Your task to perform on an android device: Open accessibility settings Image 0: 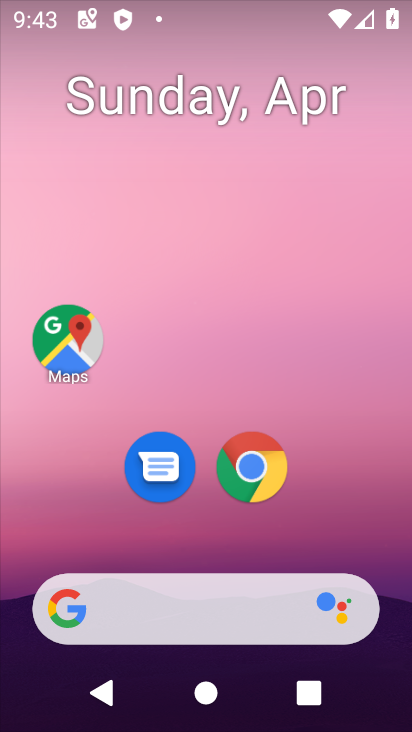
Step 0: drag from (201, 351) to (274, 6)
Your task to perform on an android device: Open accessibility settings Image 1: 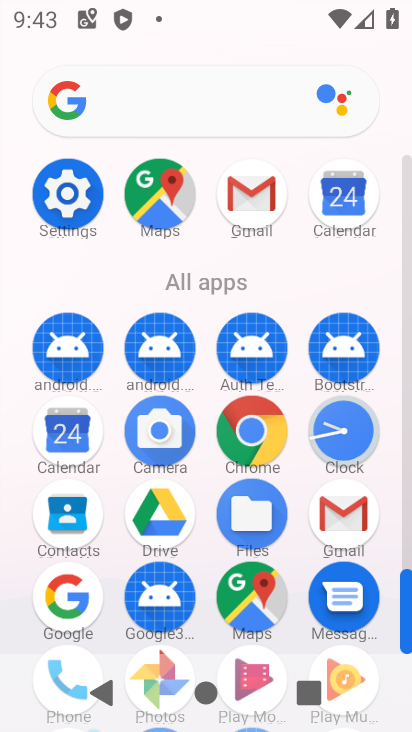
Step 1: click (68, 201)
Your task to perform on an android device: Open accessibility settings Image 2: 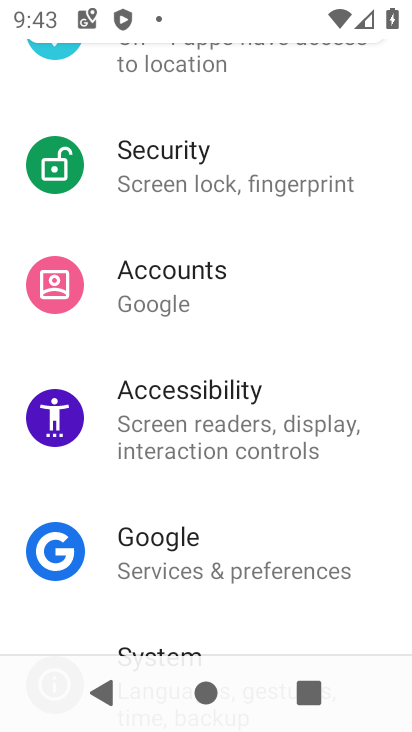
Step 2: click (222, 440)
Your task to perform on an android device: Open accessibility settings Image 3: 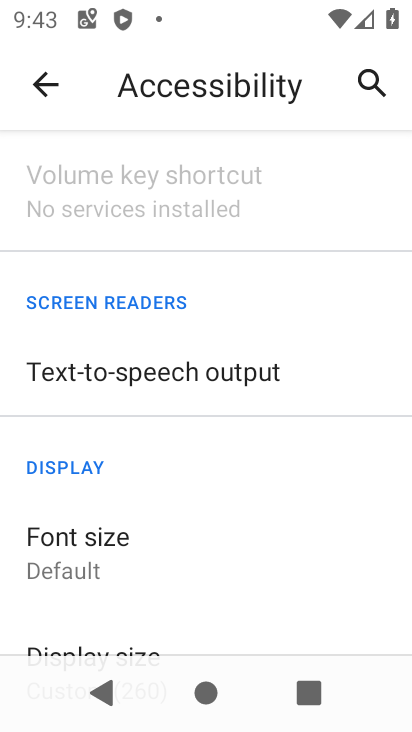
Step 3: task complete